Your task to perform on an android device: open a bookmark in the chrome app Image 0: 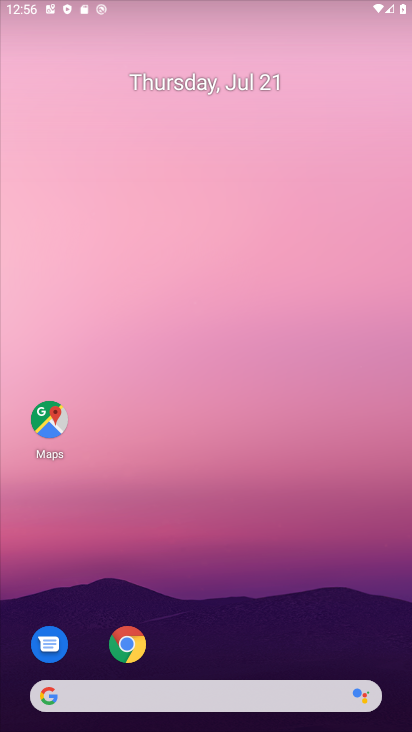
Step 0: press home button
Your task to perform on an android device: open a bookmark in the chrome app Image 1: 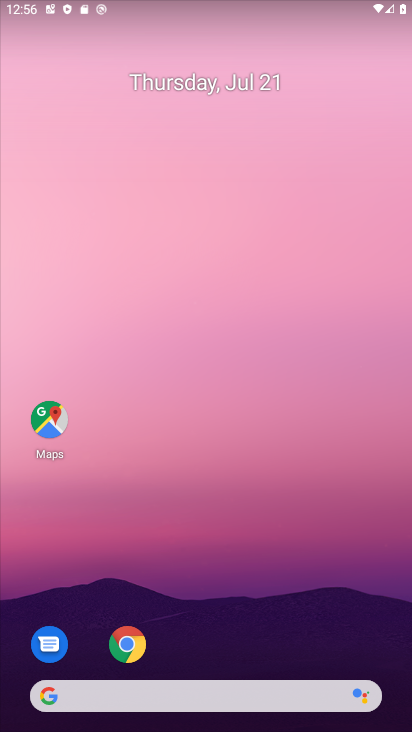
Step 1: click (135, 648)
Your task to perform on an android device: open a bookmark in the chrome app Image 2: 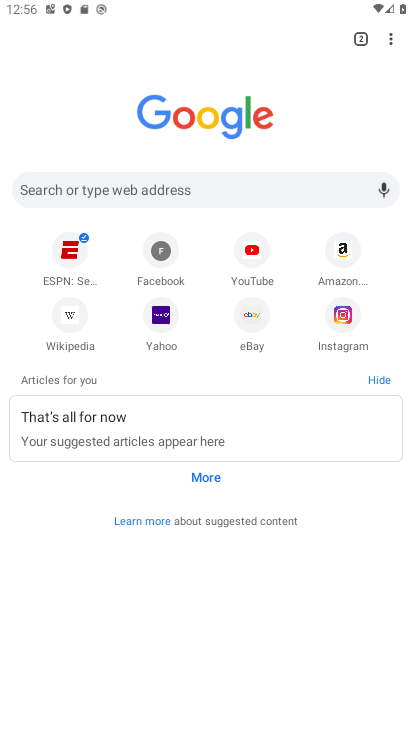
Step 2: task complete